Your task to perform on an android device: check the backup settings in the google photos Image 0: 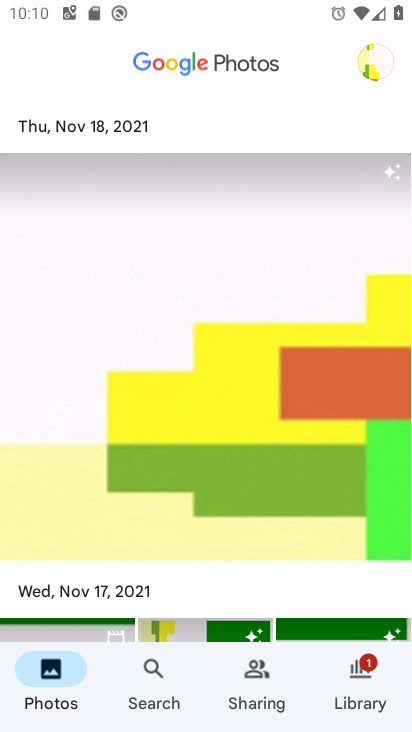
Step 0: click (370, 68)
Your task to perform on an android device: check the backup settings in the google photos Image 1: 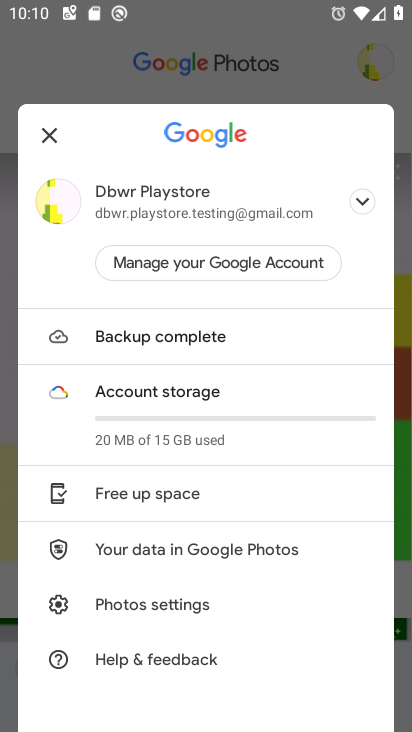
Step 1: click (161, 604)
Your task to perform on an android device: check the backup settings in the google photos Image 2: 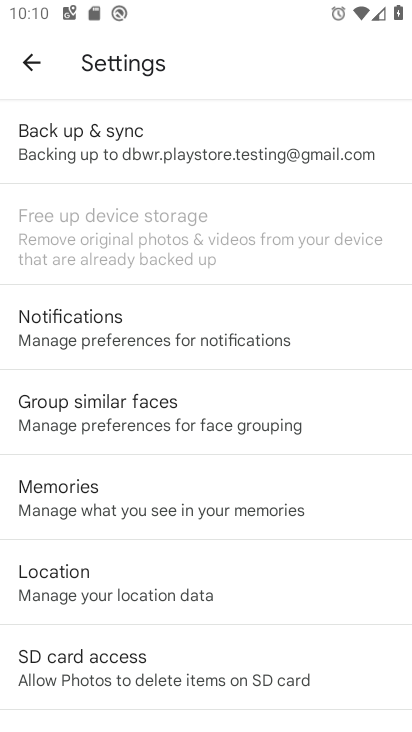
Step 2: click (114, 147)
Your task to perform on an android device: check the backup settings in the google photos Image 3: 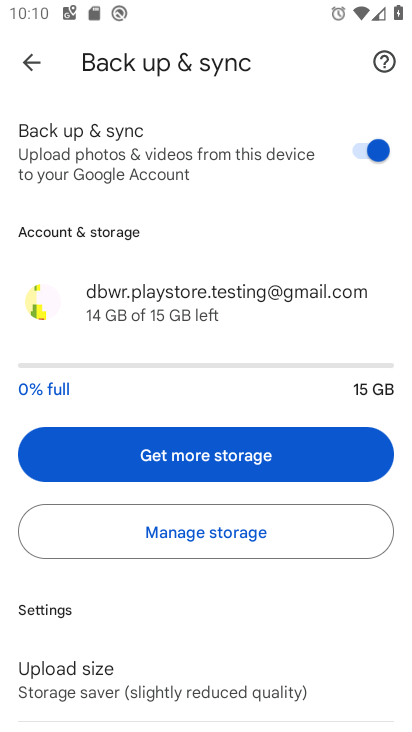
Step 3: task complete